Your task to perform on an android device: toggle wifi Image 0: 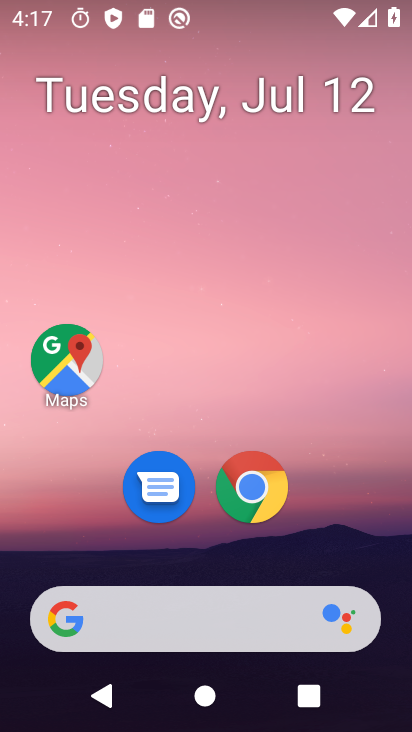
Step 0: drag from (205, 605) to (193, 0)
Your task to perform on an android device: toggle wifi Image 1: 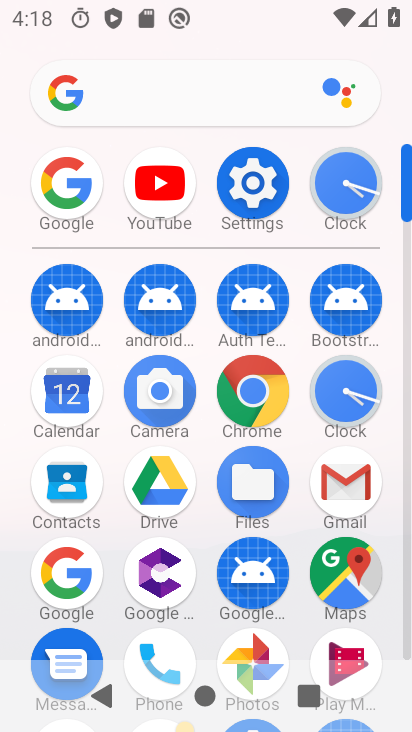
Step 1: click (266, 185)
Your task to perform on an android device: toggle wifi Image 2: 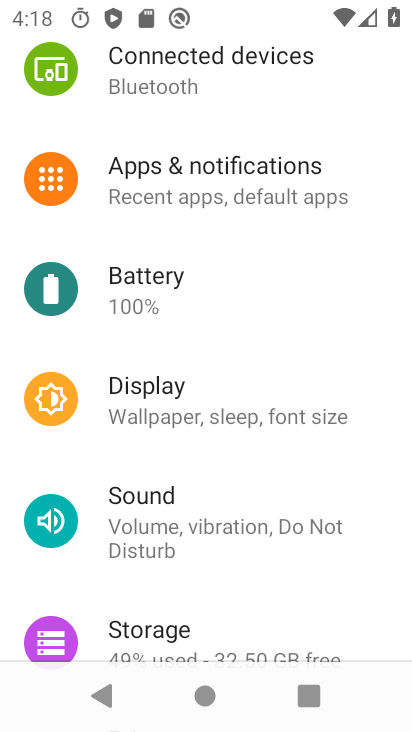
Step 2: drag from (228, 264) to (150, 722)
Your task to perform on an android device: toggle wifi Image 3: 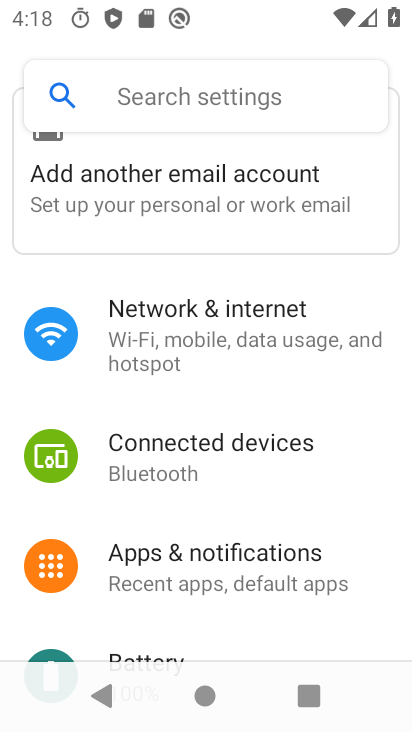
Step 3: drag from (210, 265) to (147, 638)
Your task to perform on an android device: toggle wifi Image 4: 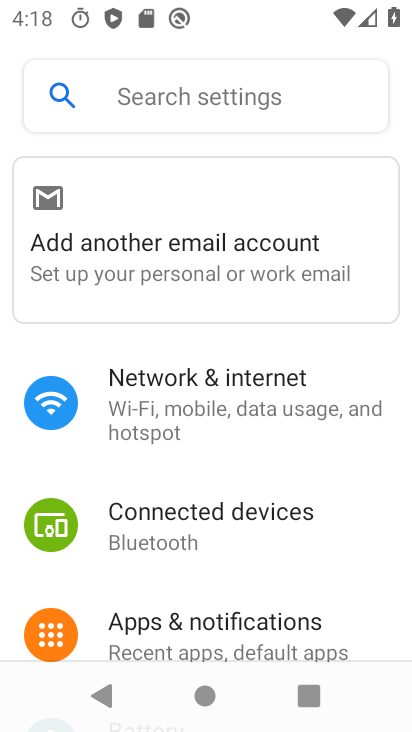
Step 4: click (209, 417)
Your task to perform on an android device: toggle wifi Image 5: 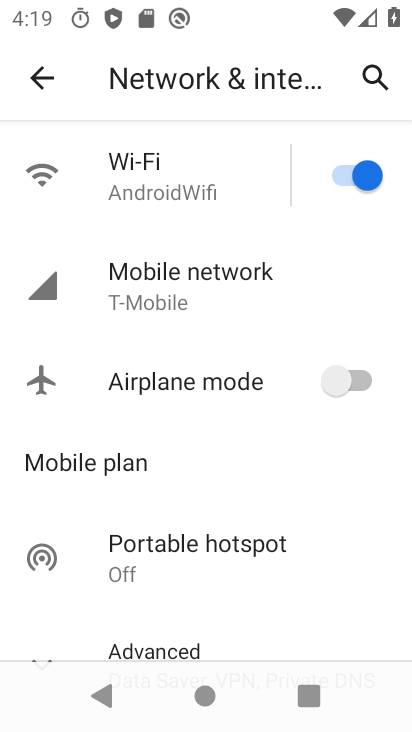
Step 5: click (341, 166)
Your task to perform on an android device: toggle wifi Image 6: 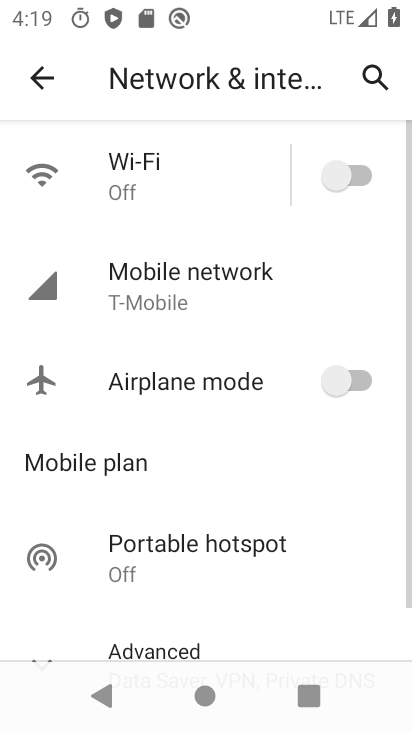
Step 6: task complete